Your task to perform on an android device: What's the weather going to be tomorrow? Image 0: 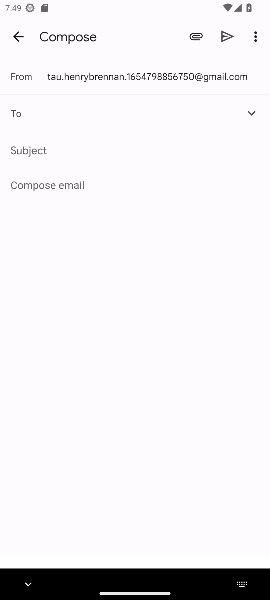
Step 0: press home button
Your task to perform on an android device: What's the weather going to be tomorrow? Image 1: 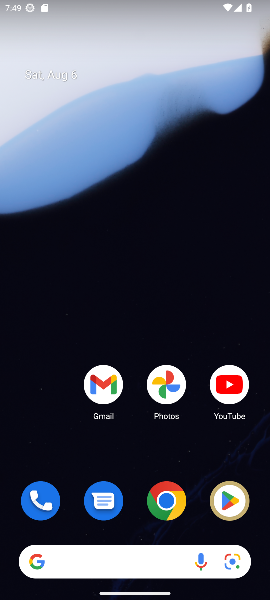
Step 1: click (66, 560)
Your task to perform on an android device: What's the weather going to be tomorrow? Image 2: 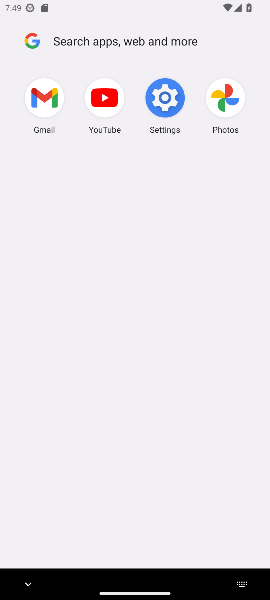
Step 2: type "What's the weather going to be tomorrow?"
Your task to perform on an android device: What's the weather going to be tomorrow? Image 3: 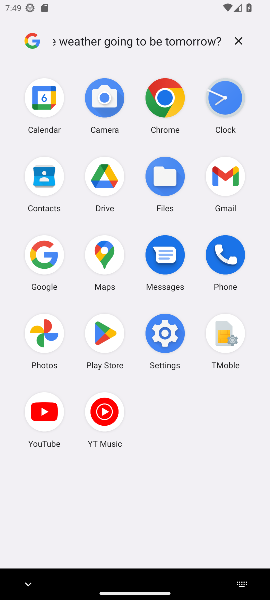
Step 3: type ""
Your task to perform on an android device: What's the weather going to be tomorrow? Image 4: 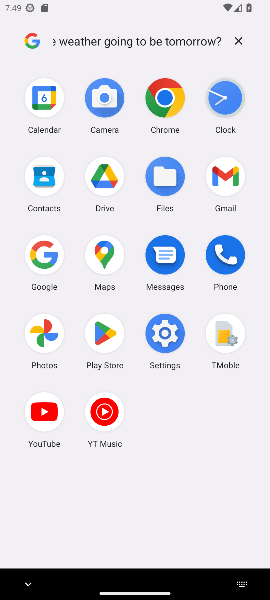
Step 4: type ""
Your task to perform on an android device: What's the weather going to be tomorrow? Image 5: 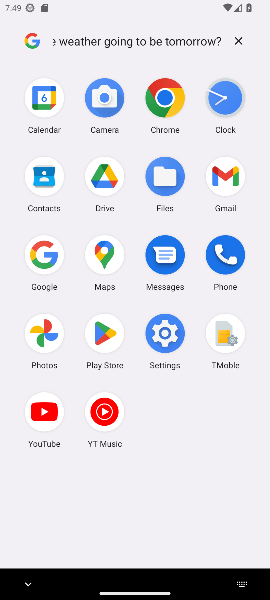
Step 5: task complete